Your task to perform on an android device: Search for vegetarian restaurants on Maps Image 0: 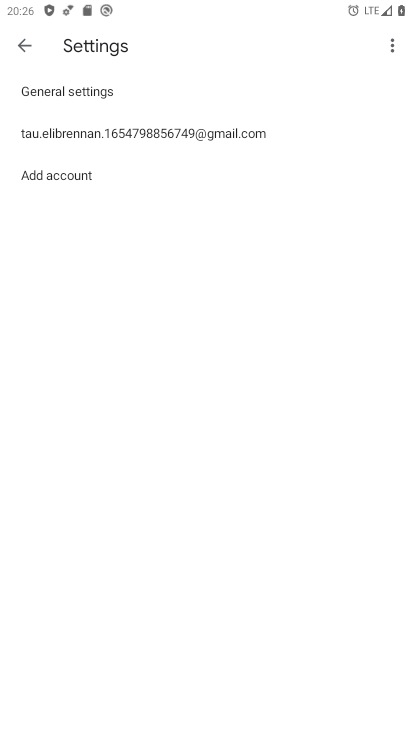
Step 0: press home button
Your task to perform on an android device: Search for vegetarian restaurants on Maps Image 1: 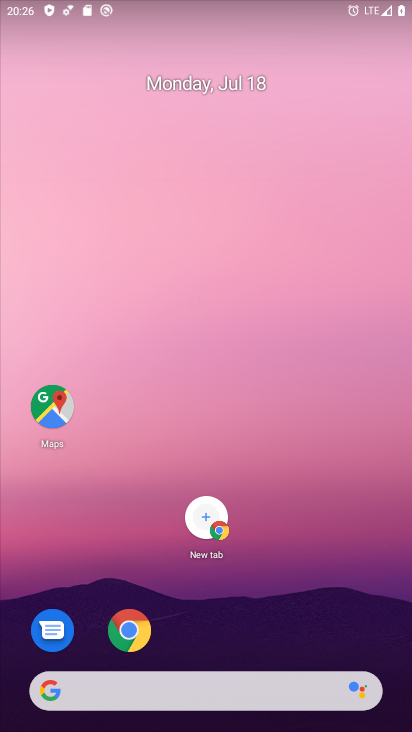
Step 1: drag from (191, 663) to (234, 405)
Your task to perform on an android device: Search for vegetarian restaurants on Maps Image 2: 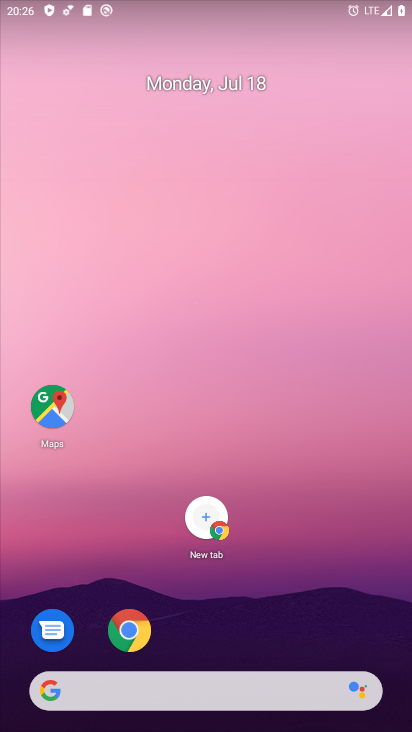
Step 2: click (61, 415)
Your task to perform on an android device: Search for vegetarian restaurants on Maps Image 3: 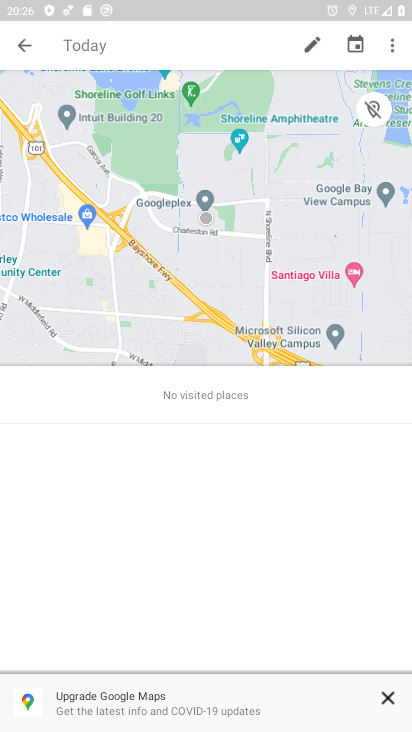
Step 3: click (24, 33)
Your task to perform on an android device: Search for vegetarian restaurants on Maps Image 4: 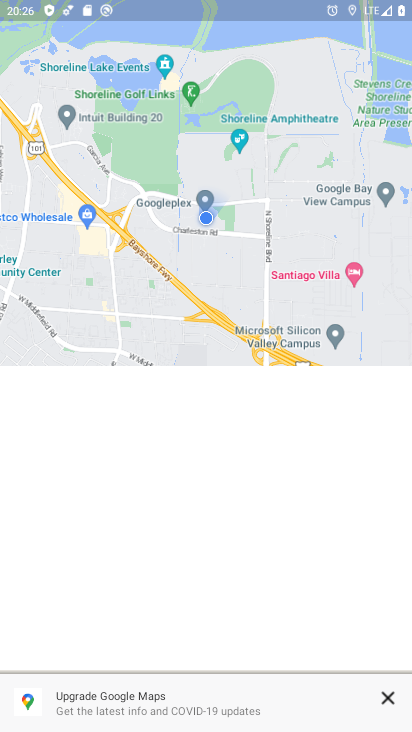
Step 4: click (33, 43)
Your task to perform on an android device: Search for vegetarian restaurants on Maps Image 5: 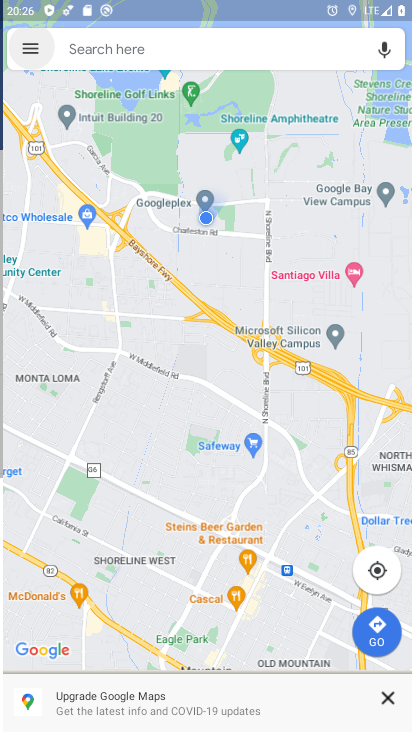
Step 5: click (91, 56)
Your task to perform on an android device: Search for vegetarian restaurants on Maps Image 6: 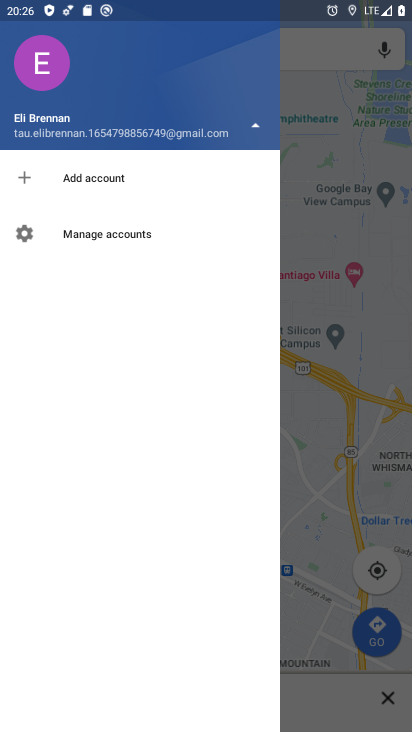
Step 6: click (331, 294)
Your task to perform on an android device: Search for vegetarian restaurants on Maps Image 7: 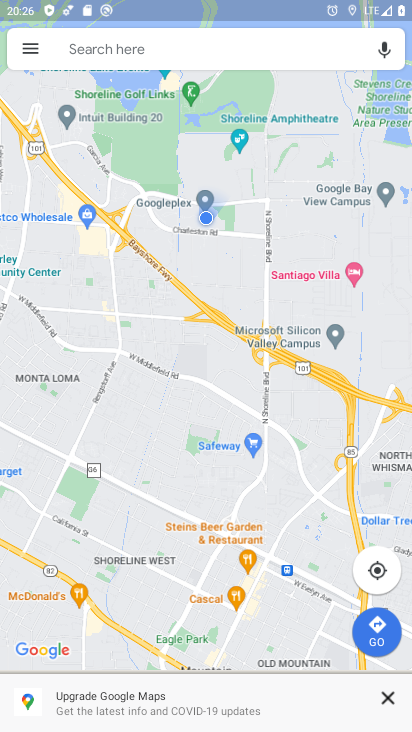
Step 7: click (238, 46)
Your task to perform on an android device: Search for vegetarian restaurants on Maps Image 8: 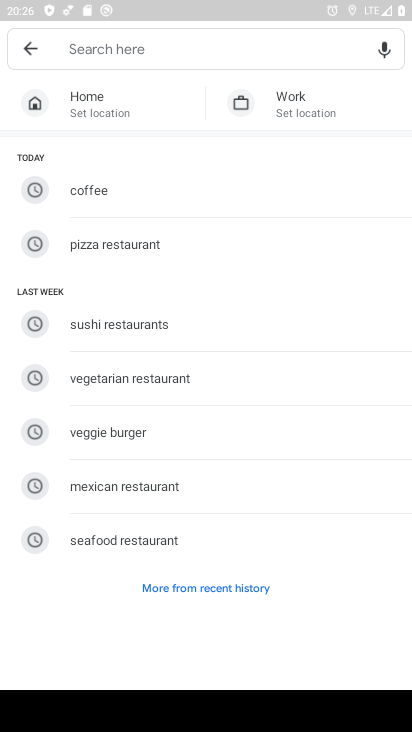
Step 8: click (127, 381)
Your task to perform on an android device: Search for vegetarian restaurants on Maps Image 9: 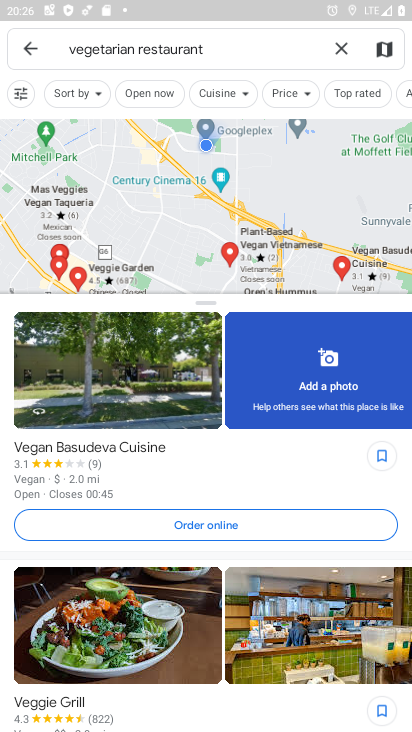
Step 9: task complete